Your task to perform on an android device: Open the map Image 0: 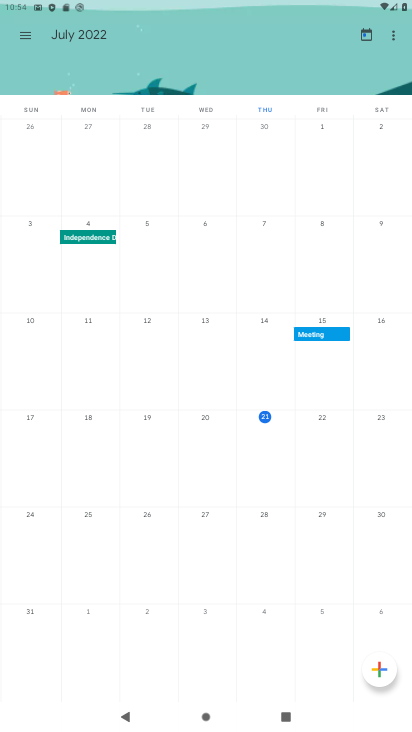
Step 0: press back button
Your task to perform on an android device: Open the map Image 1: 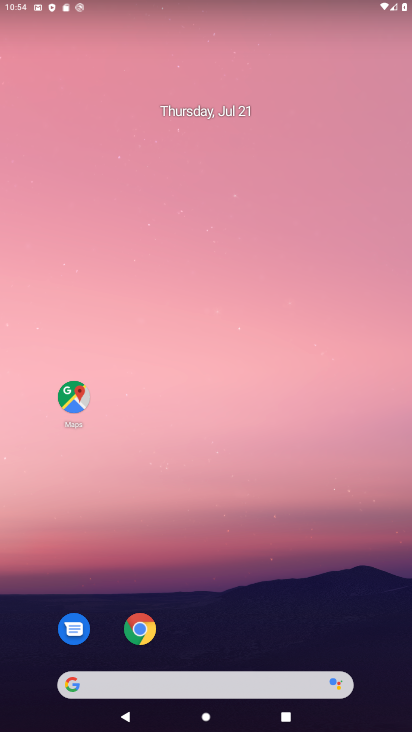
Step 1: click (62, 397)
Your task to perform on an android device: Open the map Image 2: 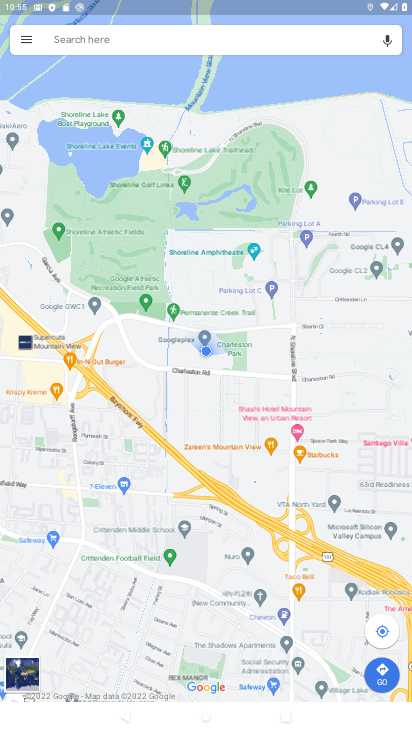
Step 2: task complete